Your task to perform on an android device: choose inbox layout in the gmail app Image 0: 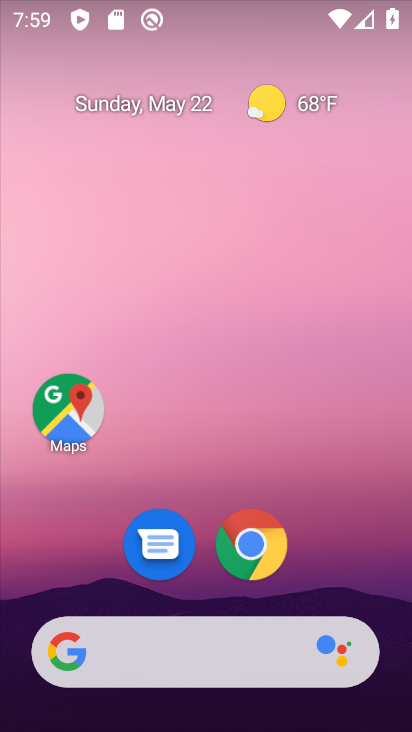
Step 0: drag from (397, 660) to (367, 231)
Your task to perform on an android device: choose inbox layout in the gmail app Image 1: 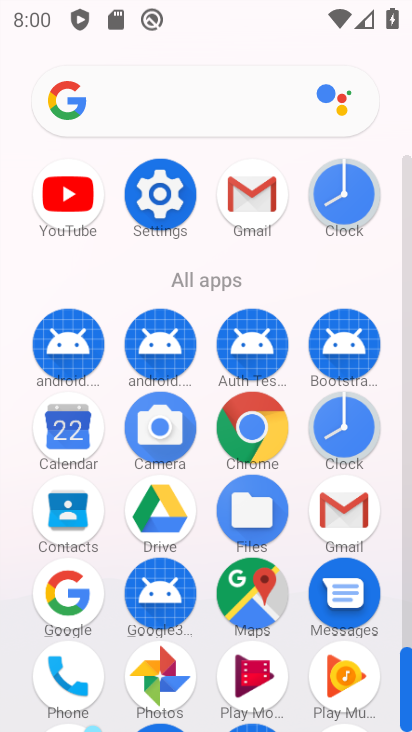
Step 1: click (261, 180)
Your task to perform on an android device: choose inbox layout in the gmail app Image 2: 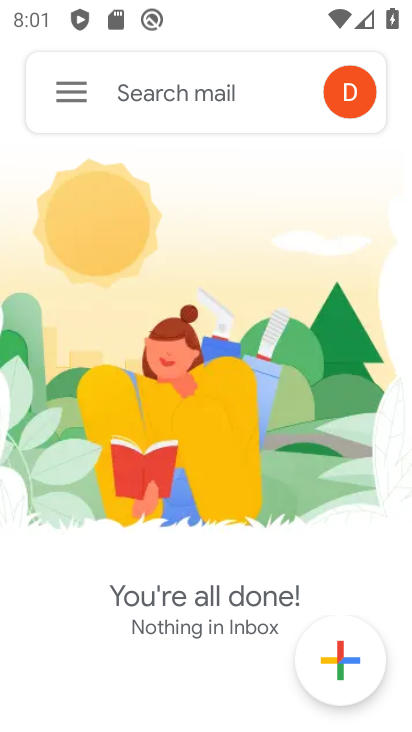
Step 2: task complete